Your task to perform on an android device: turn off smart reply in the gmail app Image 0: 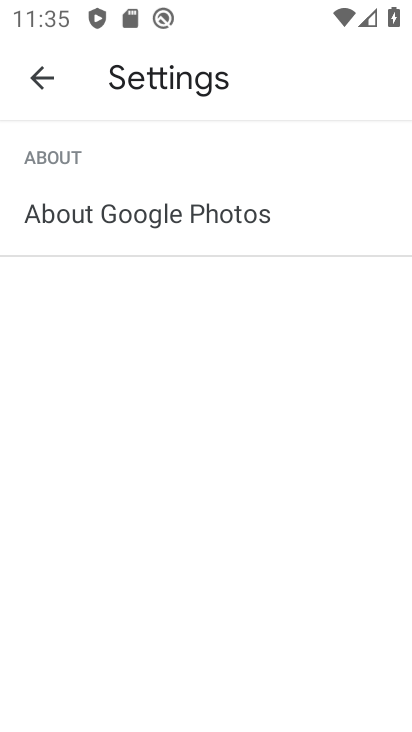
Step 0: click (25, 76)
Your task to perform on an android device: turn off smart reply in the gmail app Image 1: 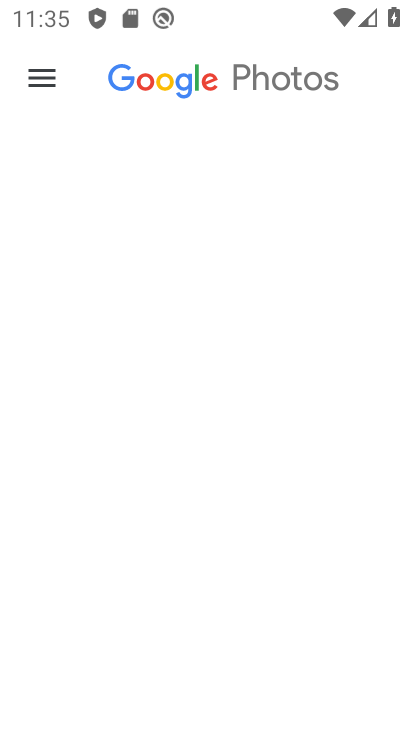
Step 1: press home button
Your task to perform on an android device: turn off smart reply in the gmail app Image 2: 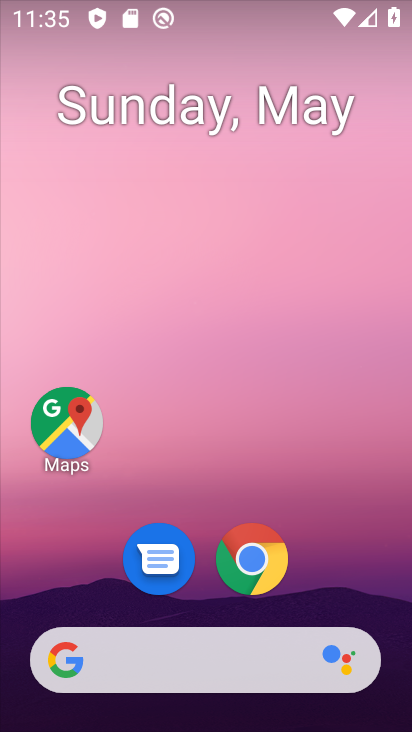
Step 2: drag from (226, 709) to (213, 181)
Your task to perform on an android device: turn off smart reply in the gmail app Image 3: 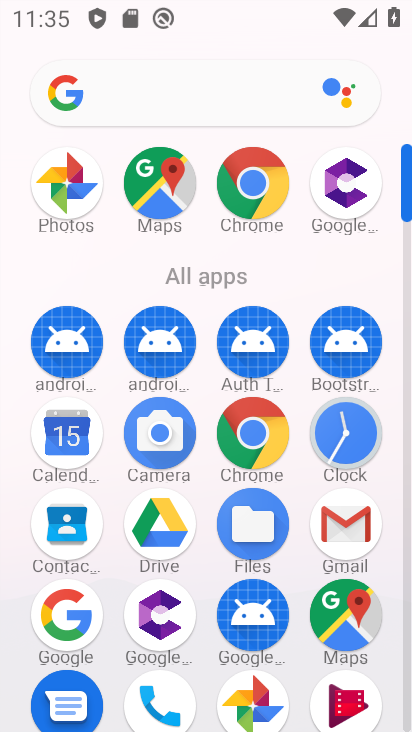
Step 3: click (344, 512)
Your task to perform on an android device: turn off smart reply in the gmail app Image 4: 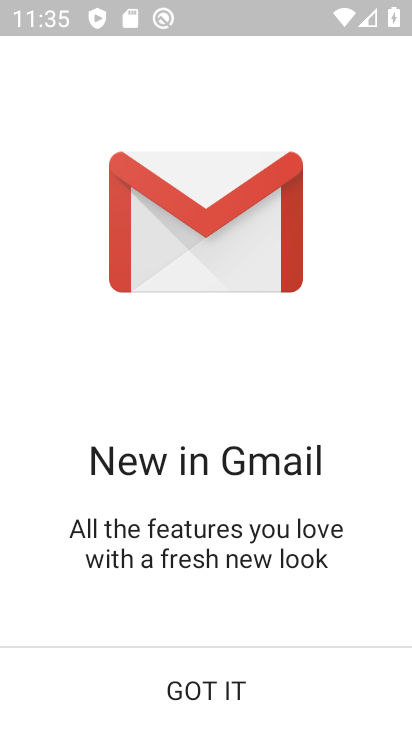
Step 4: click (228, 688)
Your task to perform on an android device: turn off smart reply in the gmail app Image 5: 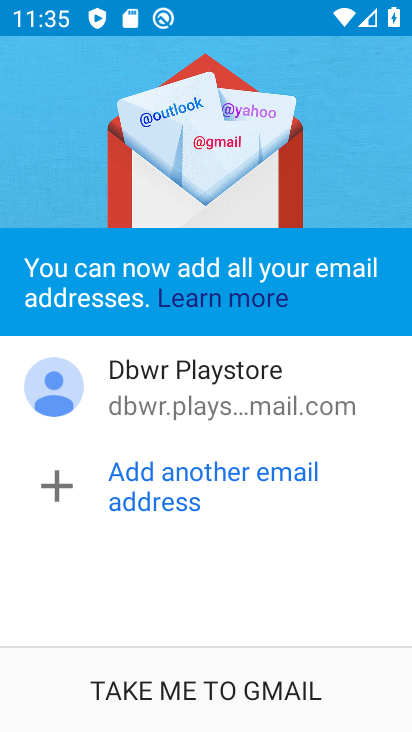
Step 5: click (228, 688)
Your task to perform on an android device: turn off smart reply in the gmail app Image 6: 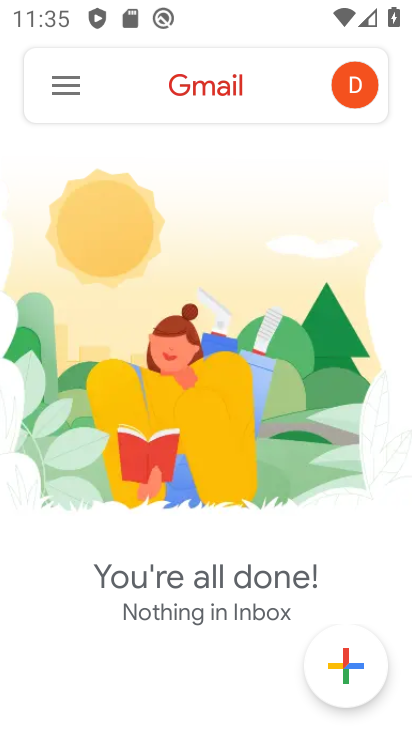
Step 6: click (46, 81)
Your task to perform on an android device: turn off smart reply in the gmail app Image 7: 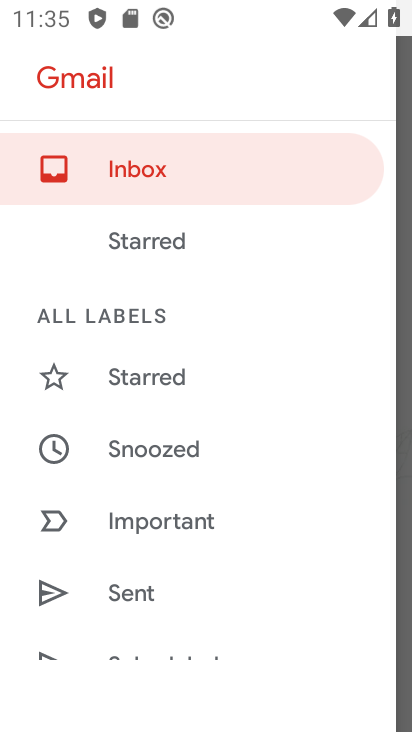
Step 7: drag from (201, 604) to (401, 128)
Your task to perform on an android device: turn off smart reply in the gmail app Image 8: 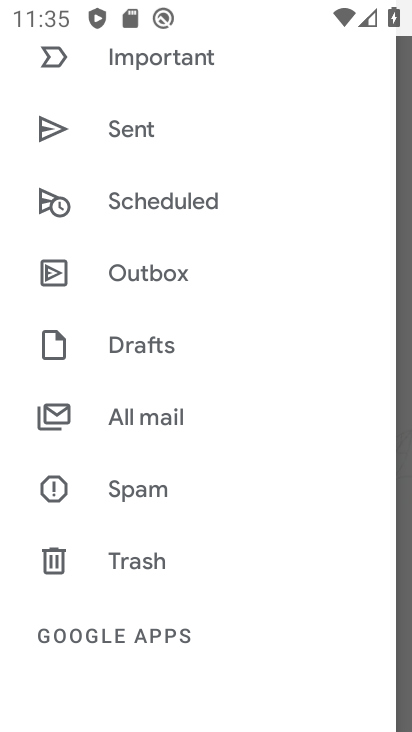
Step 8: drag from (233, 595) to (327, 51)
Your task to perform on an android device: turn off smart reply in the gmail app Image 9: 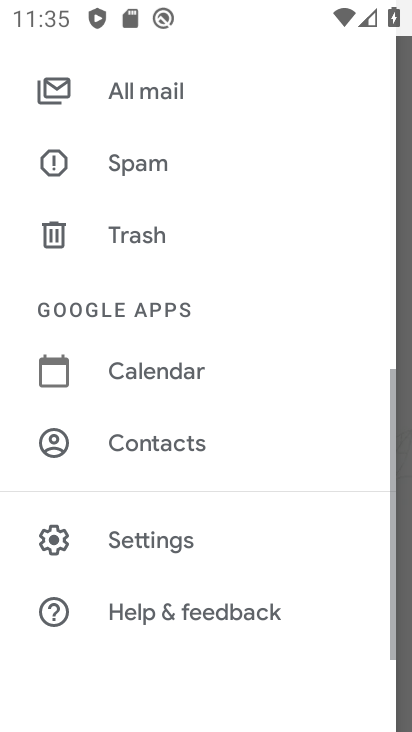
Step 9: click (185, 537)
Your task to perform on an android device: turn off smart reply in the gmail app Image 10: 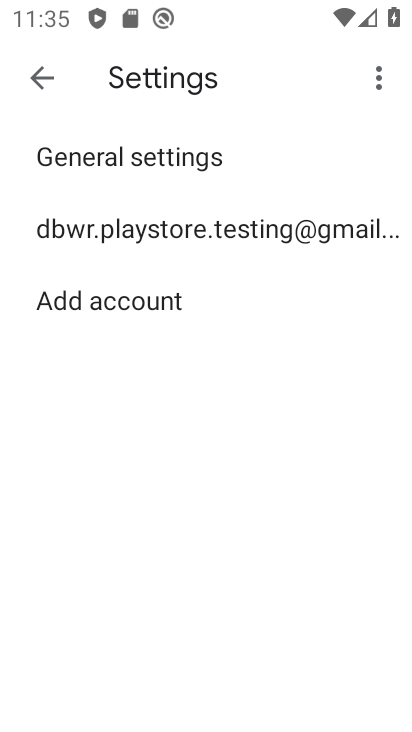
Step 10: click (143, 221)
Your task to perform on an android device: turn off smart reply in the gmail app Image 11: 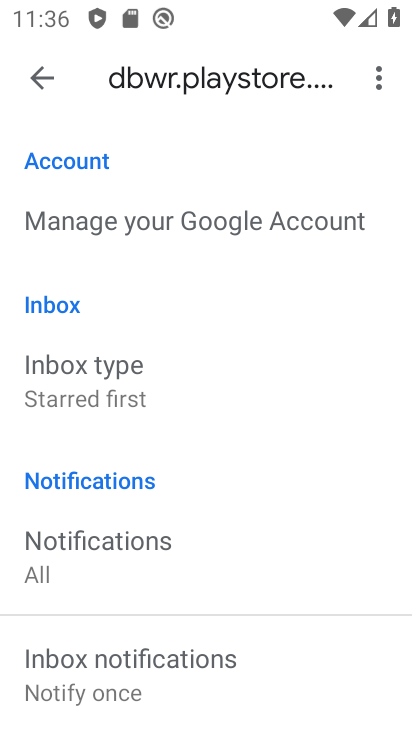
Step 11: drag from (292, 687) to (304, 74)
Your task to perform on an android device: turn off smart reply in the gmail app Image 12: 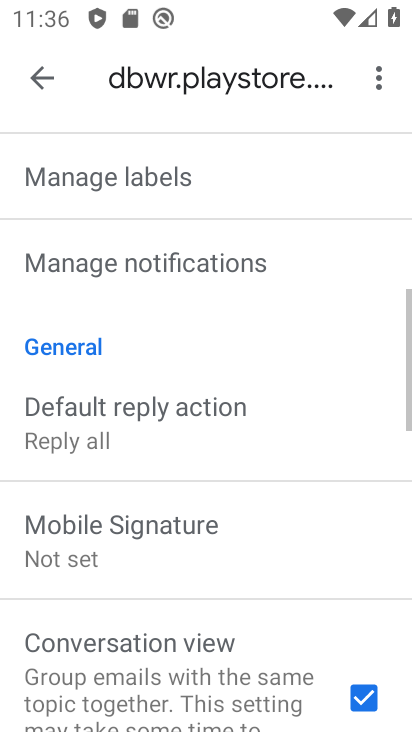
Step 12: drag from (221, 714) to (221, 18)
Your task to perform on an android device: turn off smart reply in the gmail app Image 13: 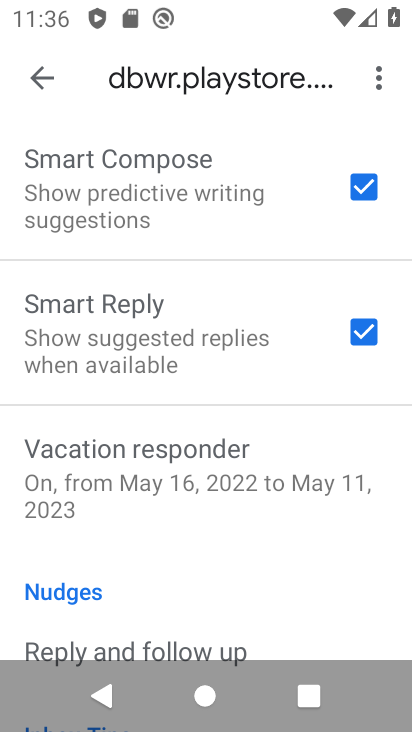
Step 13: click (364, 328)
Your task to perform on an android device: turn off smart reply in the gmail app Image 14: 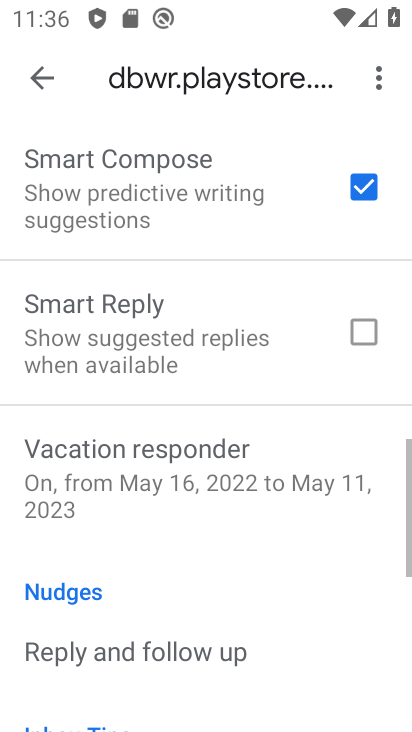
Step 14: task complete